Your task to perform on an android device: turn on priority inbox in the gmail app Image 0: 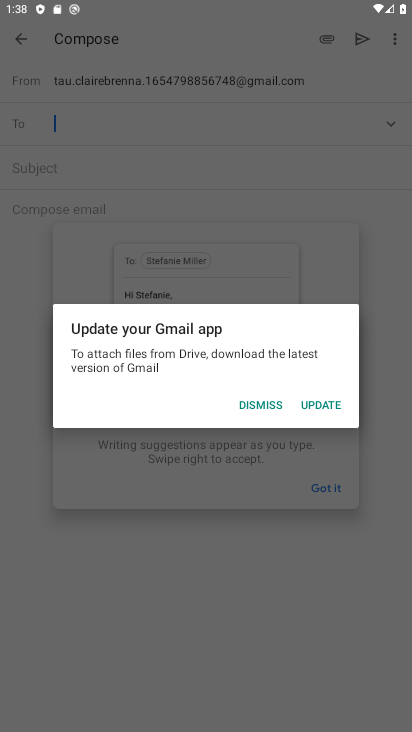
Step 0: press home button
Your task to perform on an android device: turn on priority inbox in the gmail app Image 1: 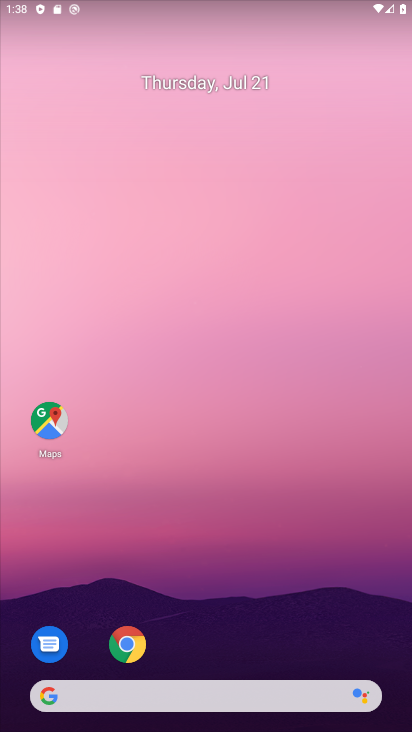
Step 1: drag from (263, 620) to (218, 29)
Your task to perform on an android device: turn on priority inbox in the gmail app Image 2: 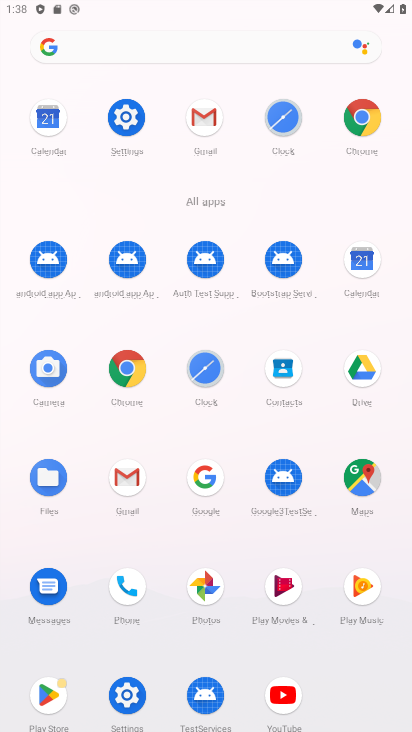
Step 2: click (204, 116)
Your task to perform on an android device: turn on priority inbox in the gmail app Image 3: 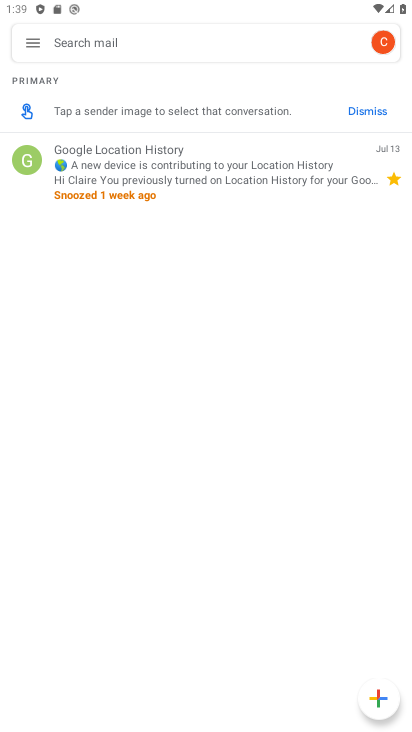
Step 3: click (32, 47)
Your task to perform on an android device: turn on priority inbox in the gmail app Image 4: 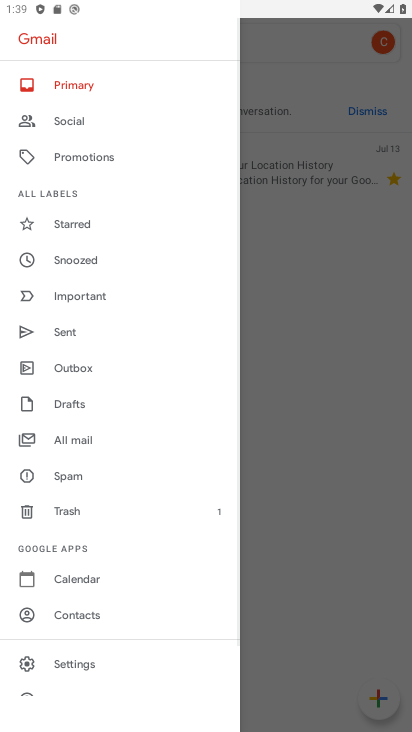
Step 4: click (83, 667)
Your task to perform on an android device: turn on priority inbox in the gmail app Image 5: 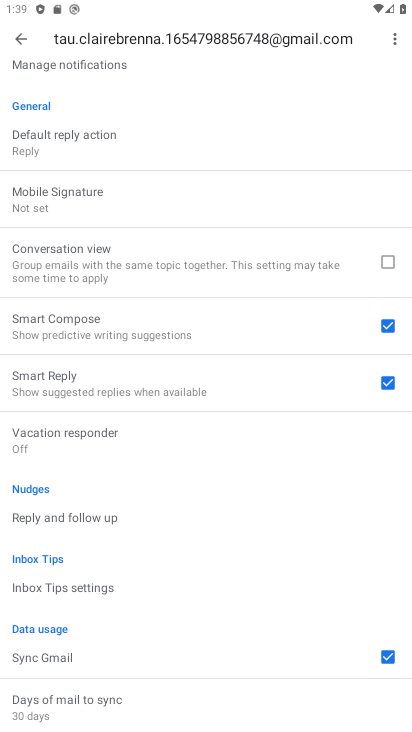
Step 5: drag from (150, 176) to (171, 449)
Your task to perform on an android device: turn on priority inbox in the gmail app Image 6: 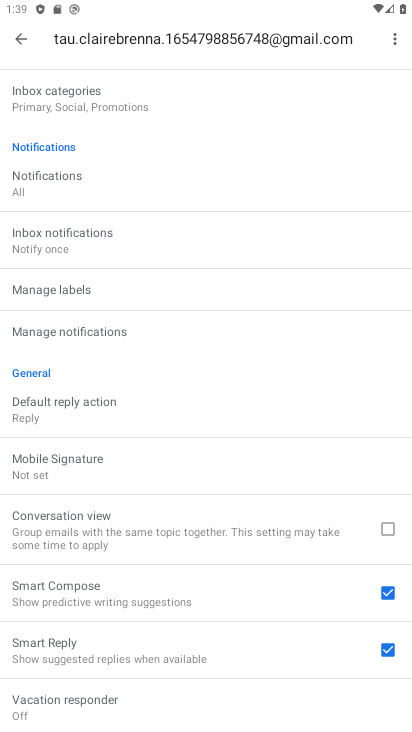
Step 6: drag from (61, 103) to (82, 289)
Your task to perform on an android device: turn on priority inbox in the gmail app Image 7: 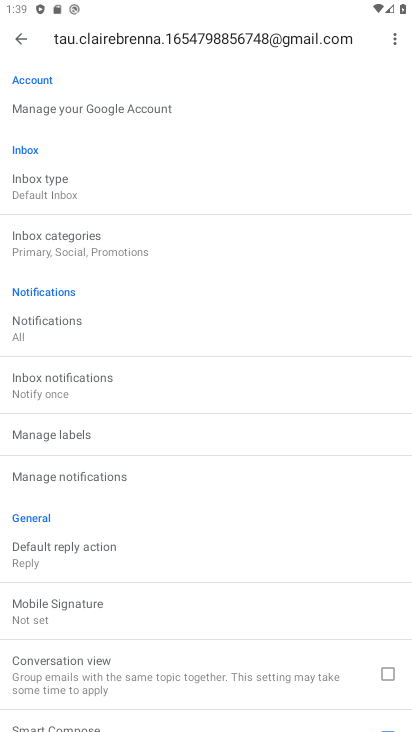
Step 7: click (74, 194)
Your task to perform on an android device: turn on priority inbox in the gmail app Image 8: 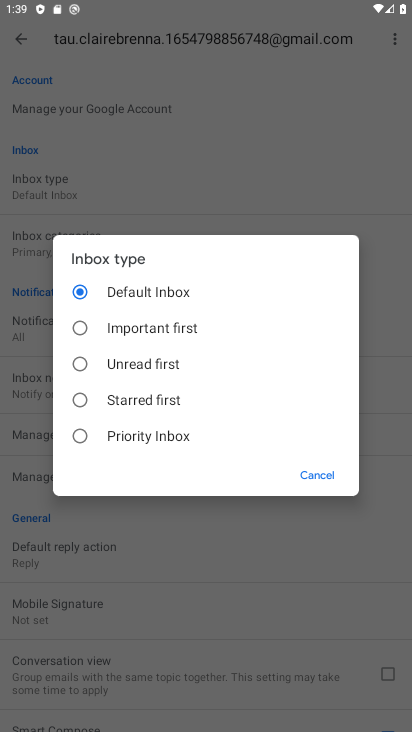
Step 8: click (98, 437)
Your task to perform on an android device: turn on priority inbox in the gmail app Image 9: 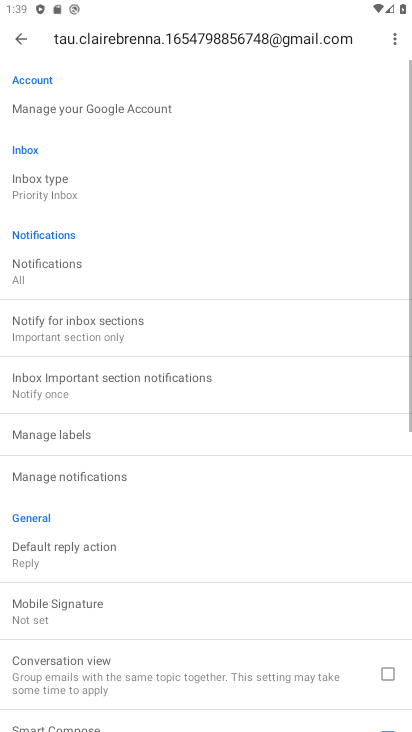
Step 9: task complete